Your task to perform on an android device: empty trash in the gmail app Image 0: 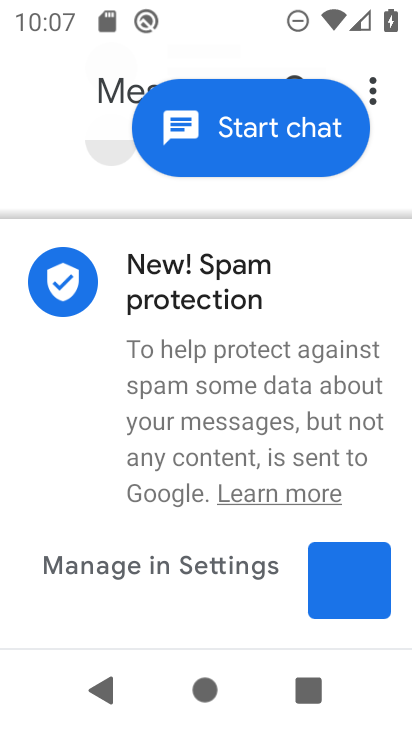
Step 0: press home button
Your task to perform on an android device: empty trash in the gmail app Image 1: 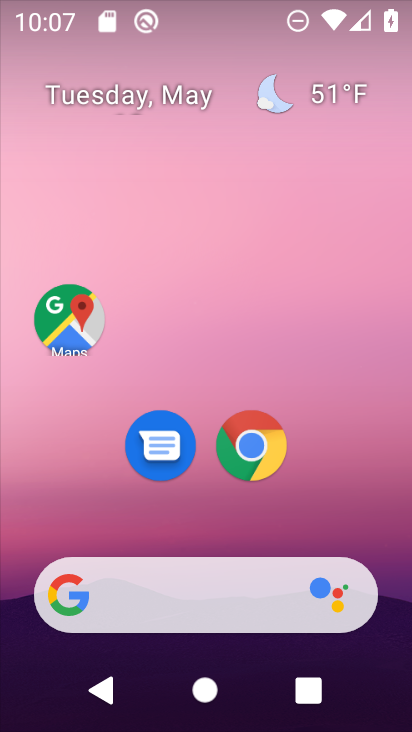
Step 1: drag from (179, 559) to (130, 29)
Your task to perform on an android device: empty trash in the gmail app Image 2: 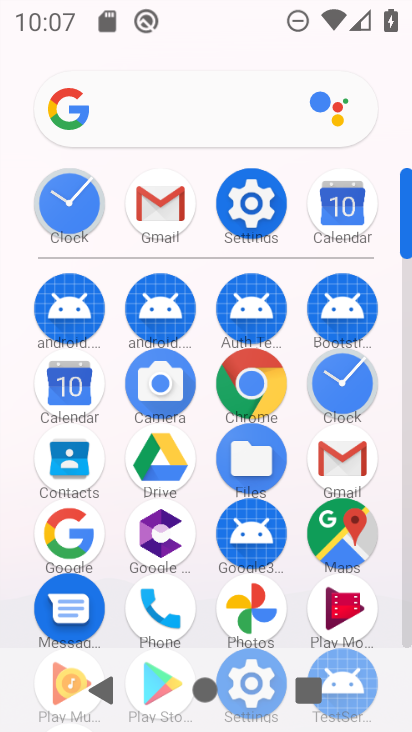
Step 2: click (155, 220)
Your task to perform on an android device: empty trash in the gmail app Image 3: 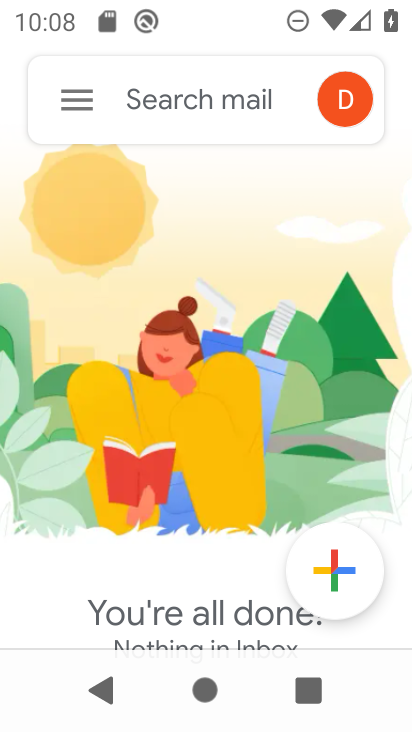
Step 3: click (76, 98)
Your task to perform on an android device: empty trash in the gmail app Image 4: 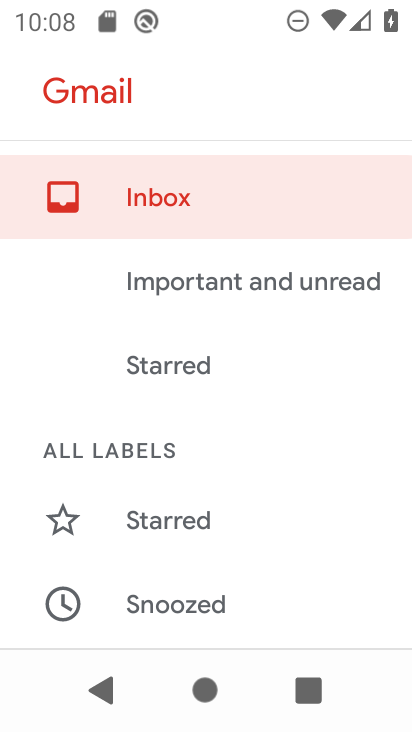
Step 4: drag from (173, 487) to (156, 51)
Your task to perform on an android device: empty trash in the gmail app Image 5: 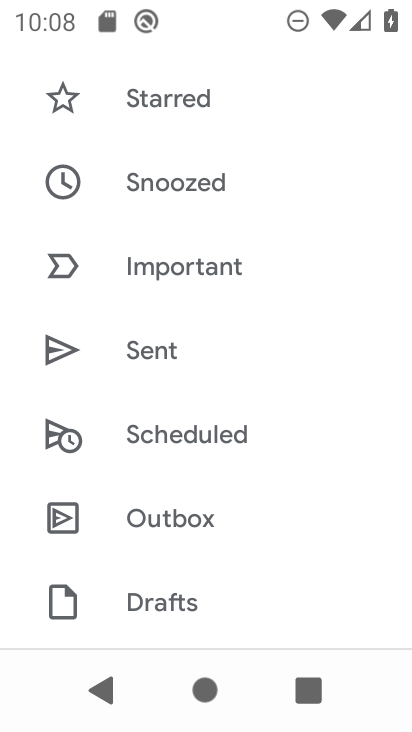
Step 5: drag from (254, 529) to (0, 299)
Your task to perform on an android device: empty trash in the gmail app Image 6: 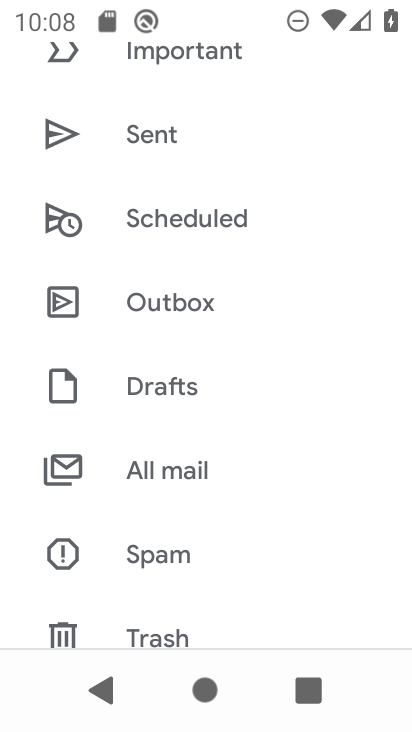
Step 6: click (130, 631)
Your task to perform on an android device: empty trash in the gmail app Image 7: 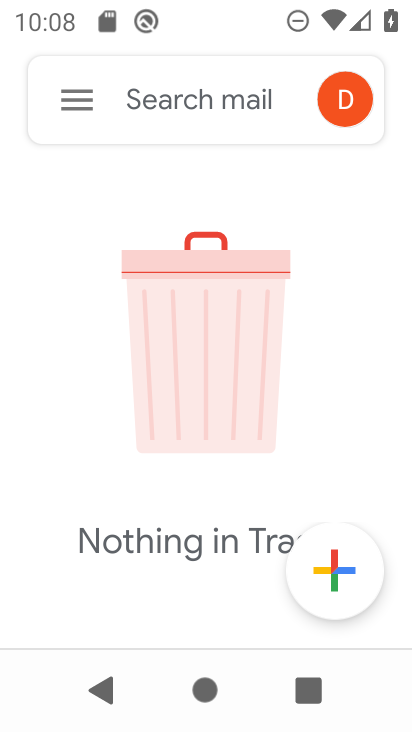
Step 7: task complete